Your task to perform on an android device: turn on translation in the chrome app Image 0: 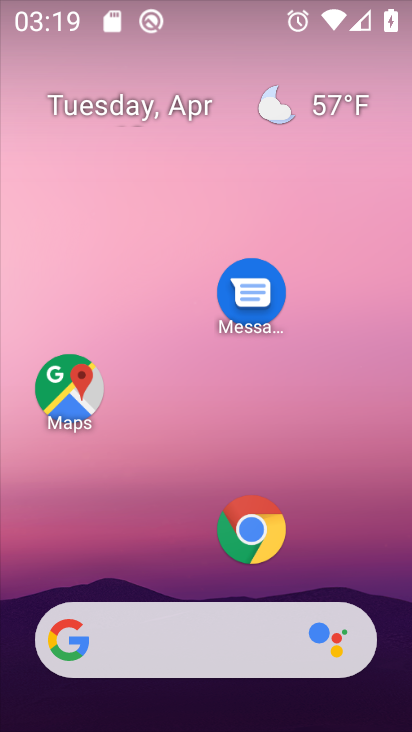
Step 0: drag from (176, 535) to (141, 93)
Your task to perform on an android device: turn on translation in the chrome app Image 1: 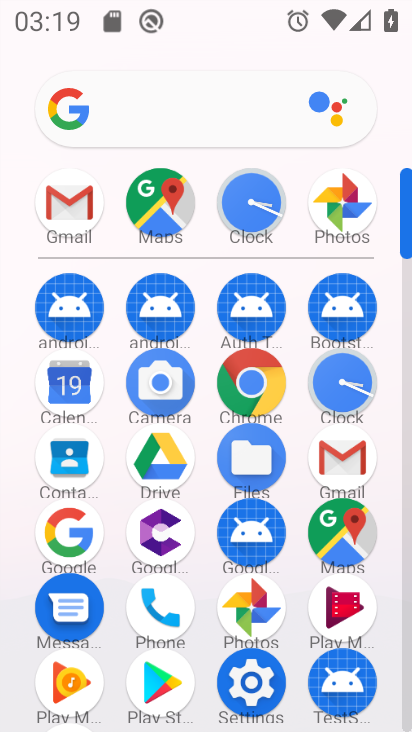
Step 1: click (254, 381)
Your task to perform on an android device: turn on translation in the chrome app Image 2: 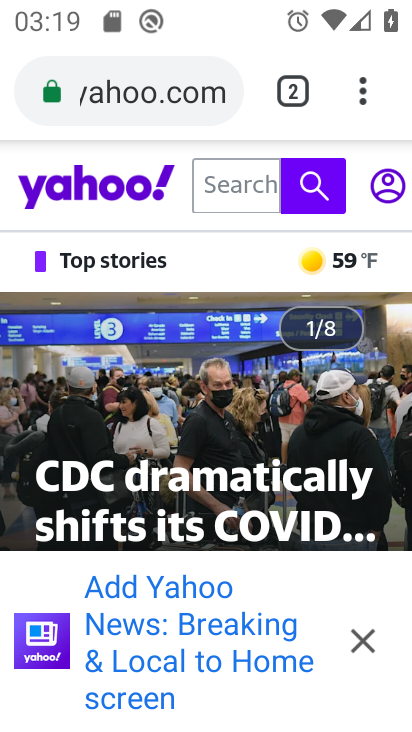
Step 2: click (355, 85)
Your task to perform on an android device: turn on translation in the chrome app Image 3: 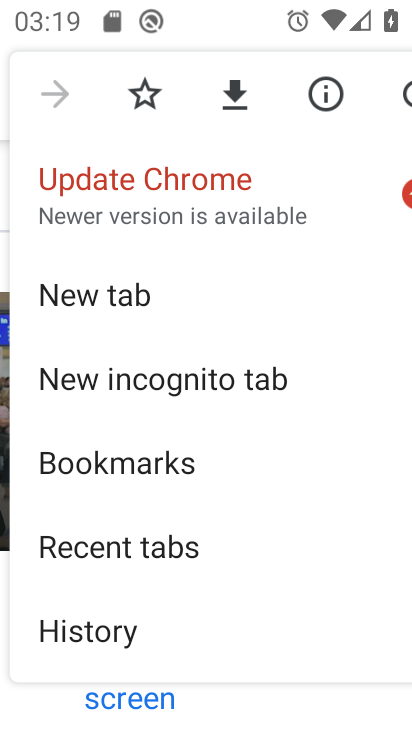
Step 3: drag from (213, 485) to (245, 54)
Your task to perform on an android device: turn on translation in the chrome app Image 4: 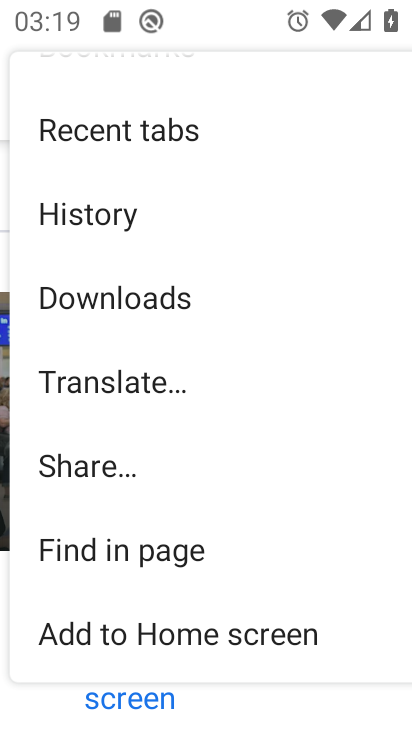
Step 4: drag from (202, 501) to (210, 140)
Your task to perform on an android device: turn on translation in the chrome app Image 5: 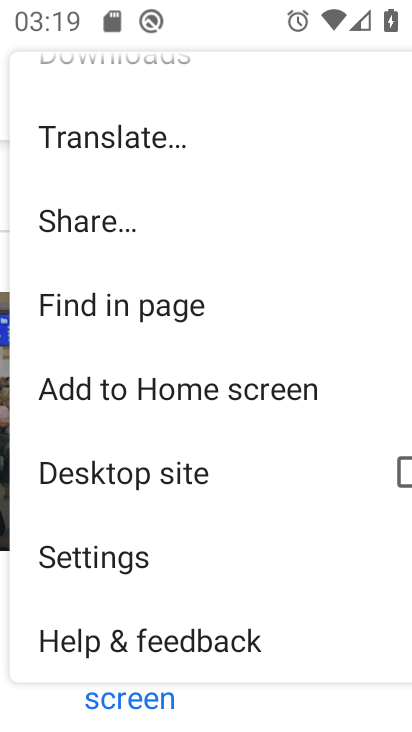
Step 5: click (123, 556)
Your task to perform on an android device: turn on translation in the chrome app Image 6: 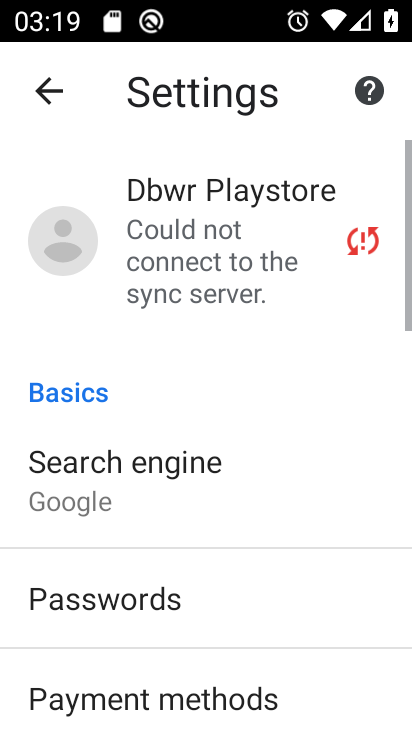
Step 6: drag from (235, 483) to (243, 134)
Your task to perform on an android device: turn on translation in the chrome app Image 7: 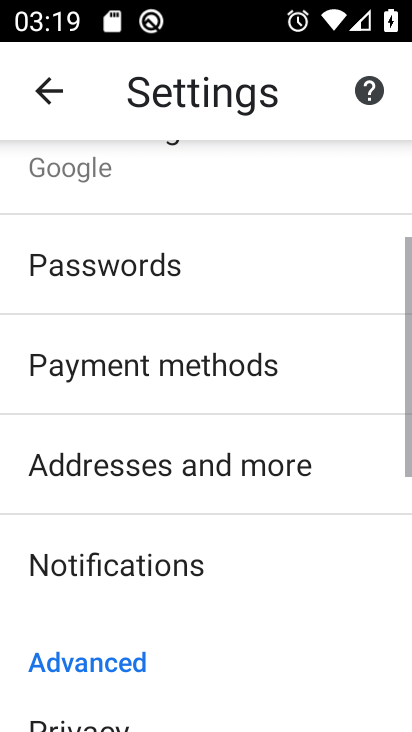
Step 7: drag from (194, 656) to (215, 256)
Your task to perform on an android device: turn on translation in the chrome app Image 8: 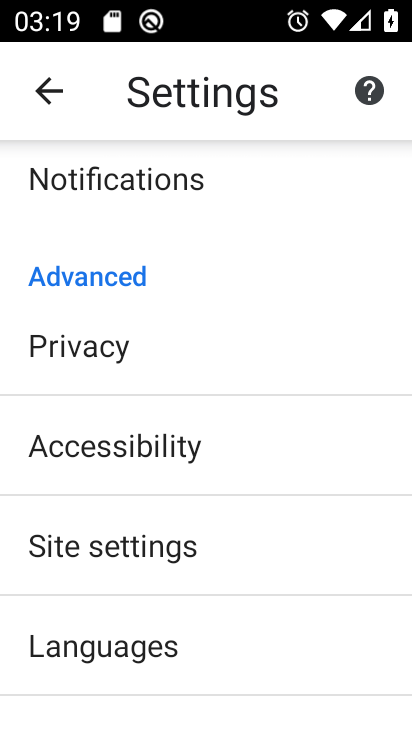
Step 8: click (138, 652)
Your task to perform on an android device: turn on translation in the chrome app Image 9: 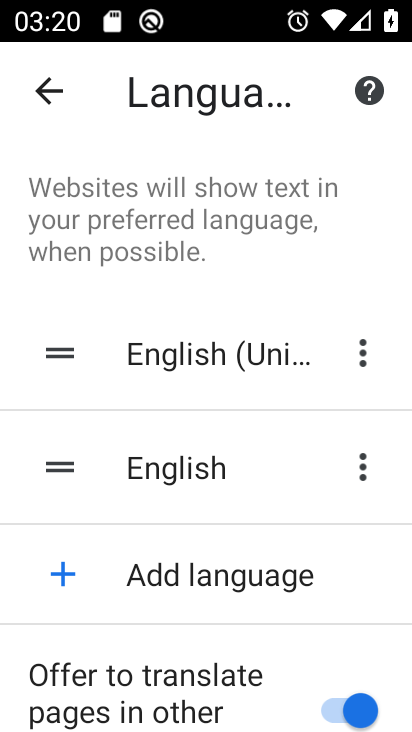
Step 9: task complete